Your task to perform on an android device: Open settings Image 0: 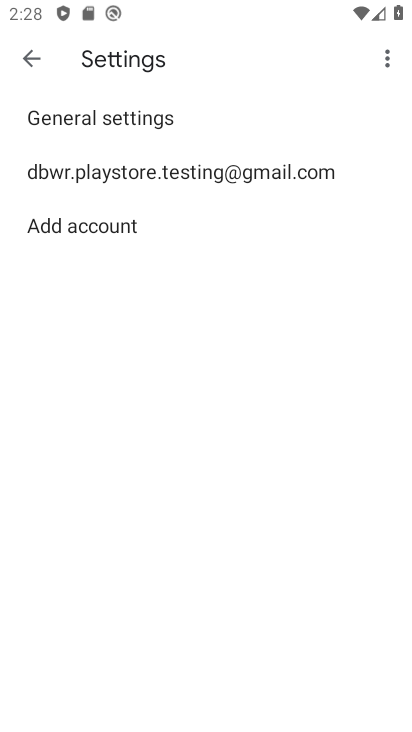
Step 0: press home button
Your task to perform on an android device: Open settings Image 1: 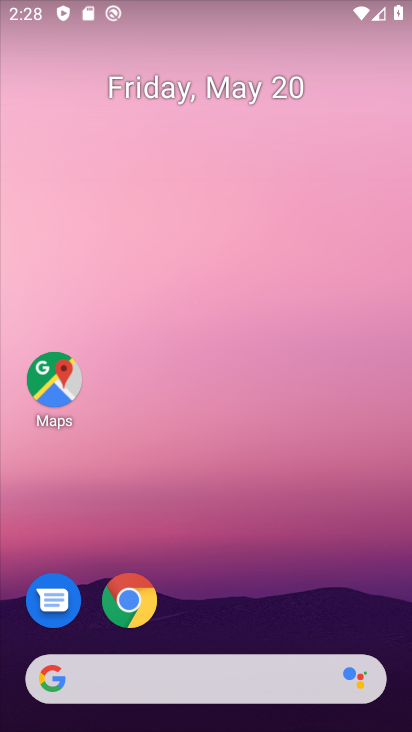
Step 1: drag from (327, 582) to (331, 231)
Your task to perform on an android device: Open settings Image 2: 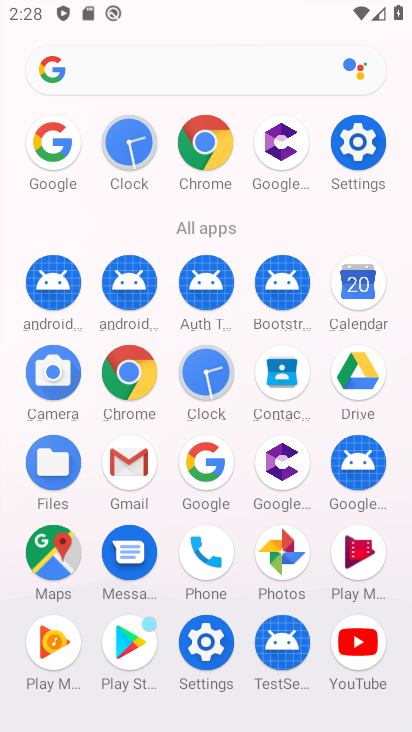
Step 2: click (359, 149)
Your task to perform on an android device: Open settings Image 3: 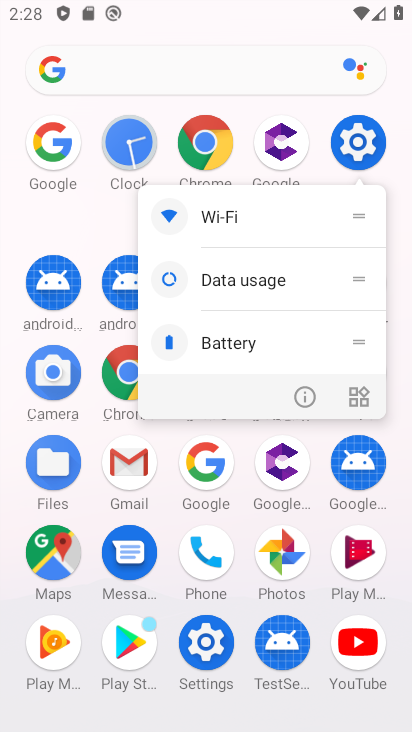
Step 3: click (360, 148)
Your task to perform on an android device: Open settings Image 4: 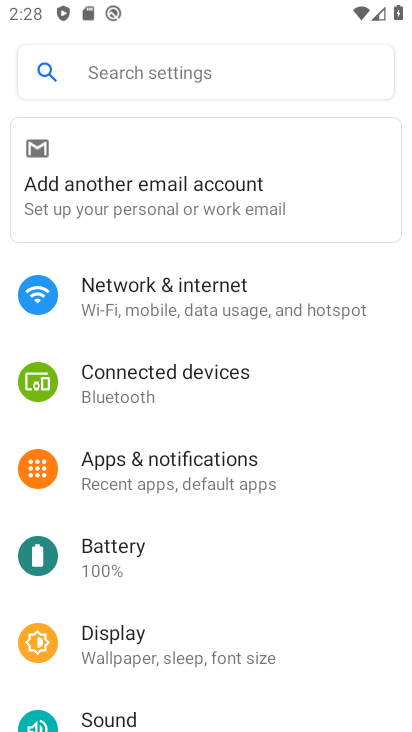
Step 4: task complete